Your task to perform on an android device: Open Google Maps Image 0: 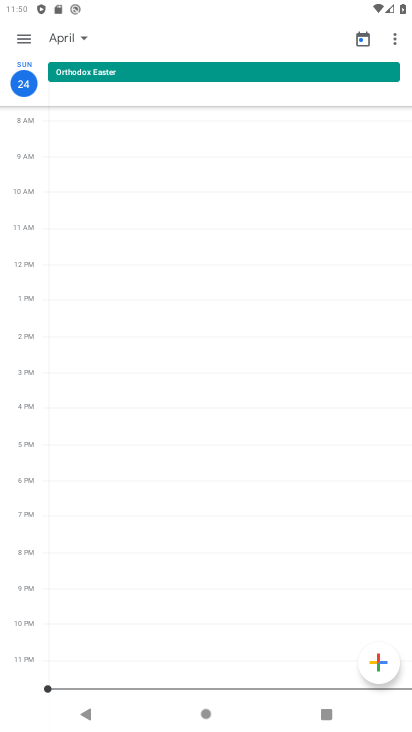
Step 0: press home button
Your task to perform on an android device: Open Google Maps Image 1: 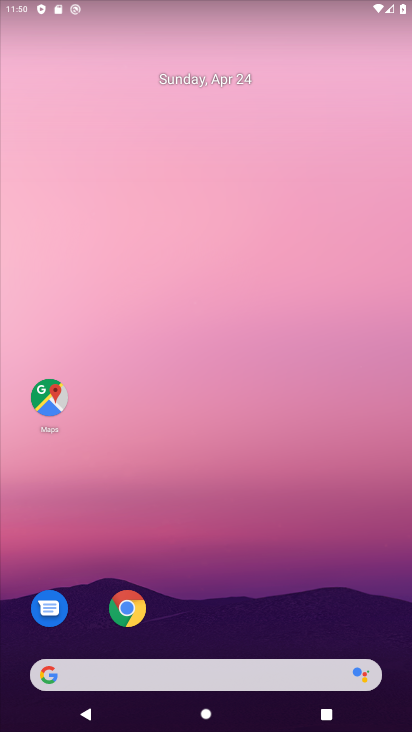
Step 1: drag from (232, 726) to (231, 71)
Your task to perform on an android device: Open Google Maps Image 2: 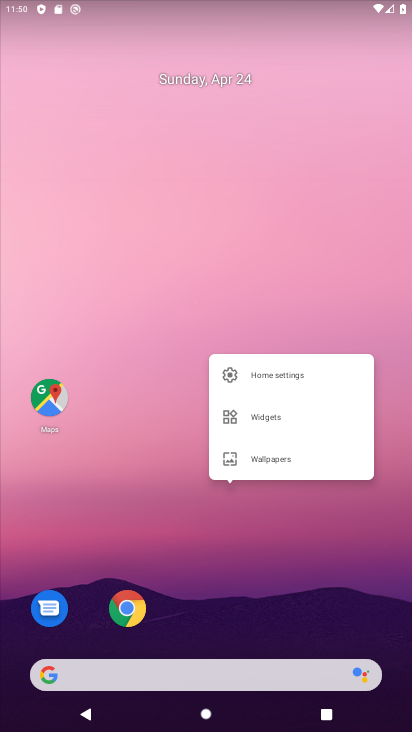
Step 2: click (217, 221)
Your task to perform on an android device: Open Google Maps Image 3: 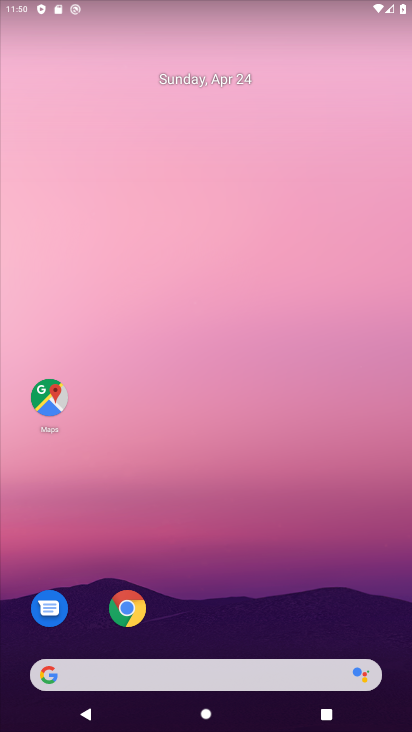
Step 3: drag from (223, 167) to (222, 79)
Your task to perform on an android device: Open Google Maps Image 4: 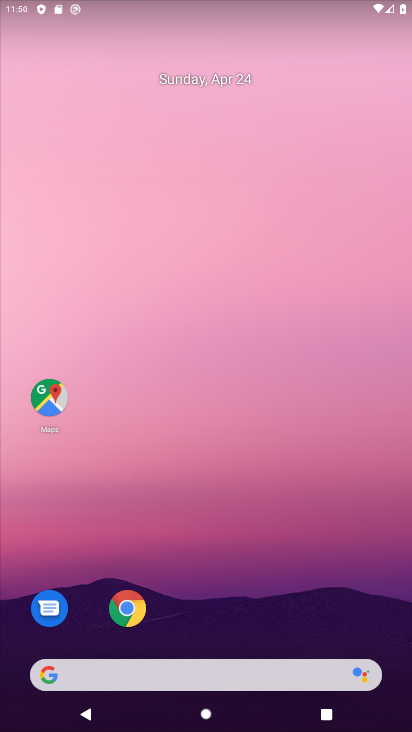
Step 4: drag from (232, 721) to (216, 82)
Your task to perform on an android device: Open Google Maps Image 5: 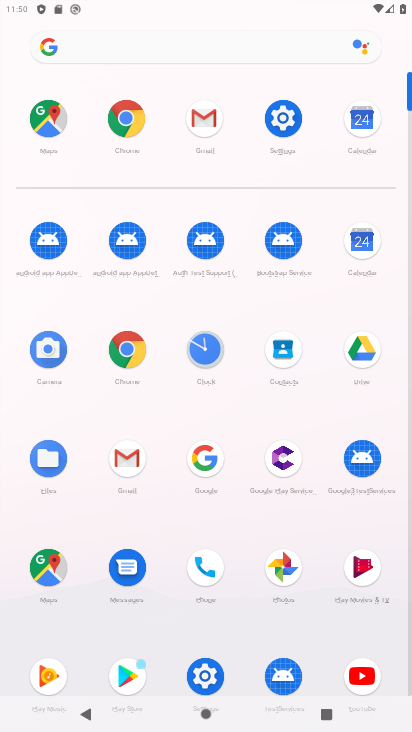
Step 5: click (42, 562)
Your task to perform on an android device: Open Google Maps Image 6: 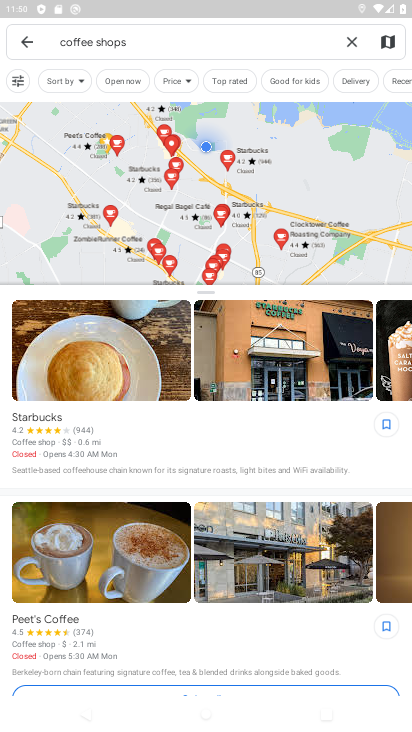
Step 6: task complete